Your task to perform on an android device: Go to privacy settings Image 0: 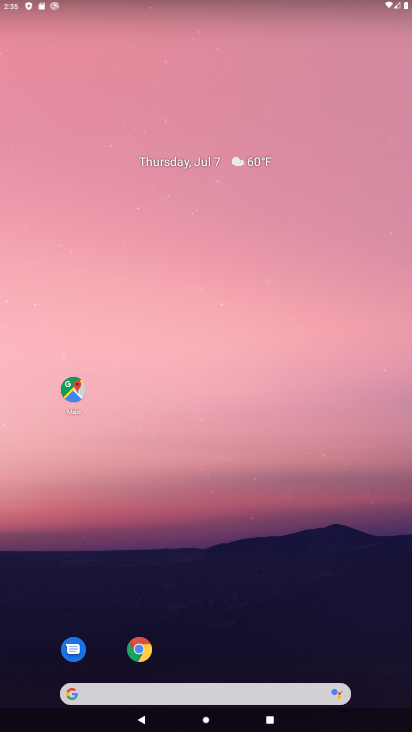
Step 0: drag from (217, 567) to (289, 169)
Your task to perform on an android device: Go to privacy settings Image 1: 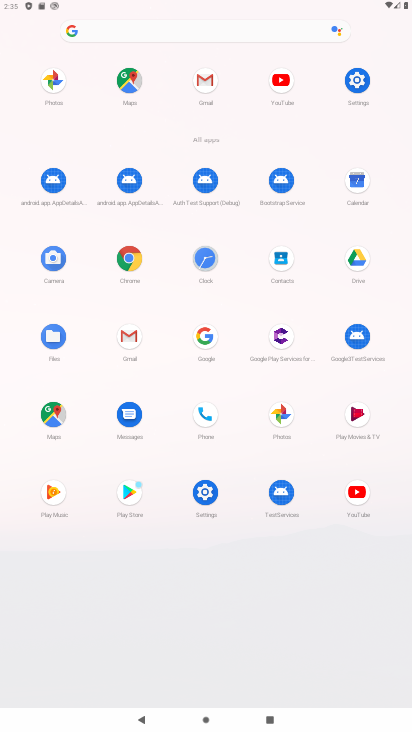
Step 1: click (127, 264)
Your task to perform on an android device: Go to privacy settings Image 2: 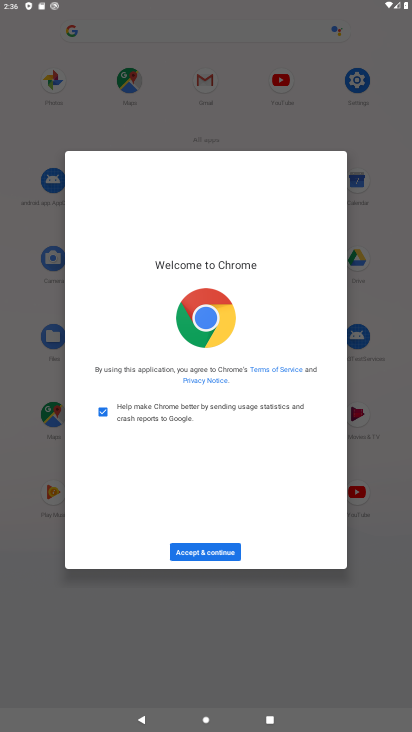
Step 2: click (215, 555)
Your task to perform on an android device: Go to privacy settings Image 3: 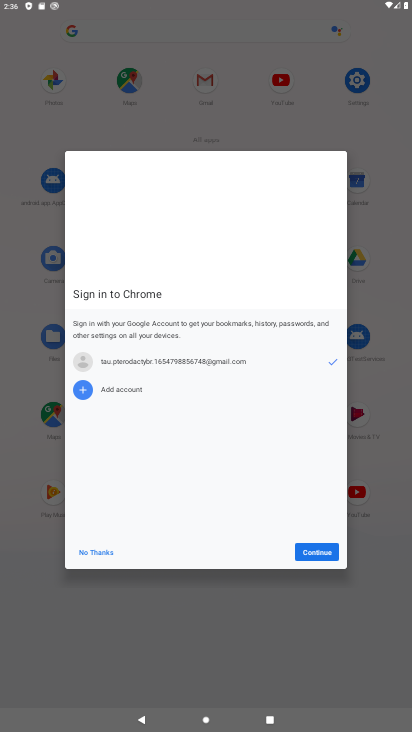
Step 3: click (305, 541)
Your task to perform on an android device: Go to privacy settings Image 4: 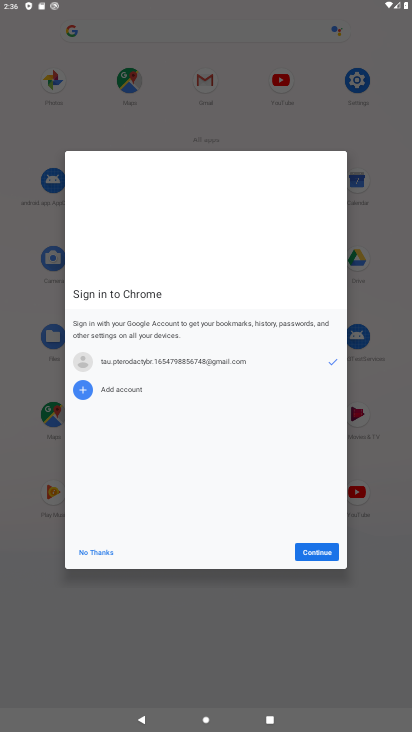
Step 4: click (317, 550)
Your task to perform on an android device: Go to privacy settings Image 5: 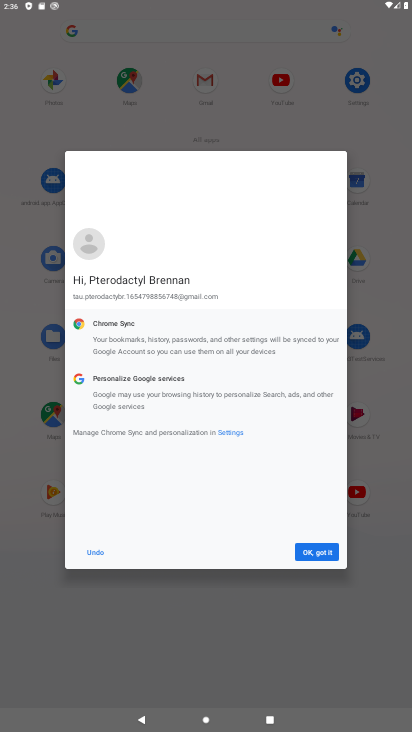
Step 5: click (316, 546)
Your task to perform on an android device: Go to privacy settings Image 6: 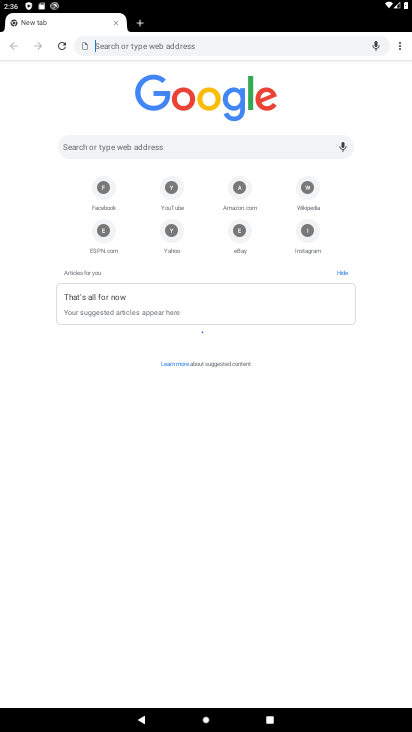
Step 6: drag from (396, 53) to (331, 210)
Your task to perform on an android device: Go to privacy settings Image 7: 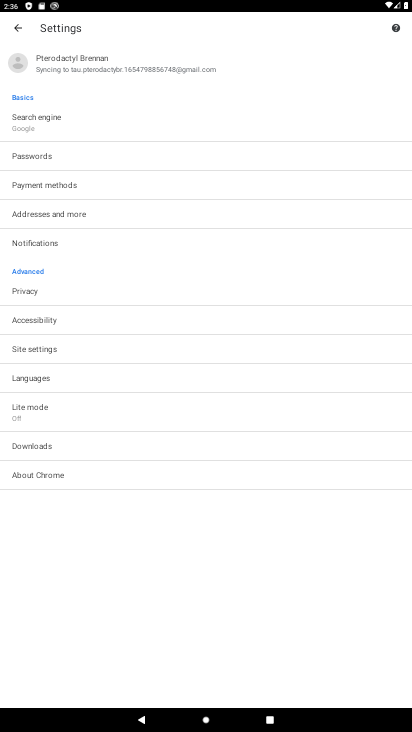
Step 7: click (76, 298)
Your task to perform on an android device: Go to privacy settings Image 8: 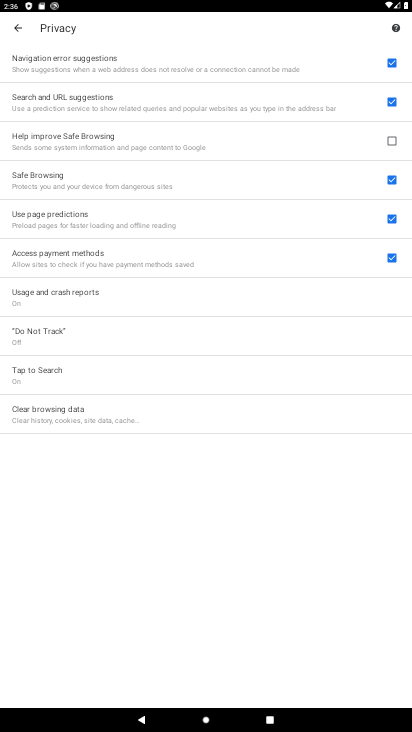
Step 8: task complete